Your task to perform on an android device: allow notifications from all sites in the chrome app Image 0: 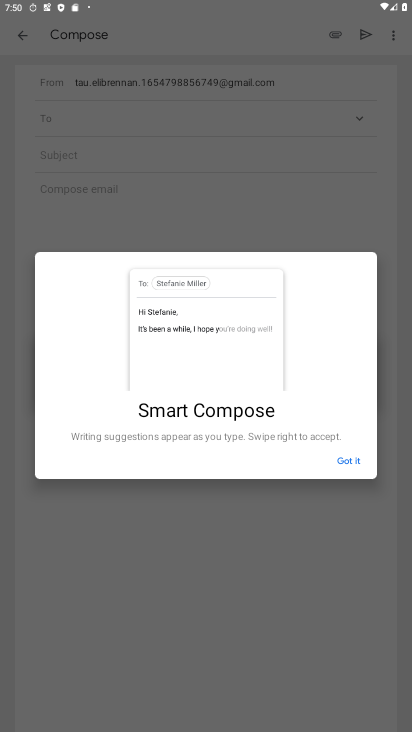
Step 0: press home button
Your task to perform on an android device: allow notifications from all sites in the chrome app Image 1: 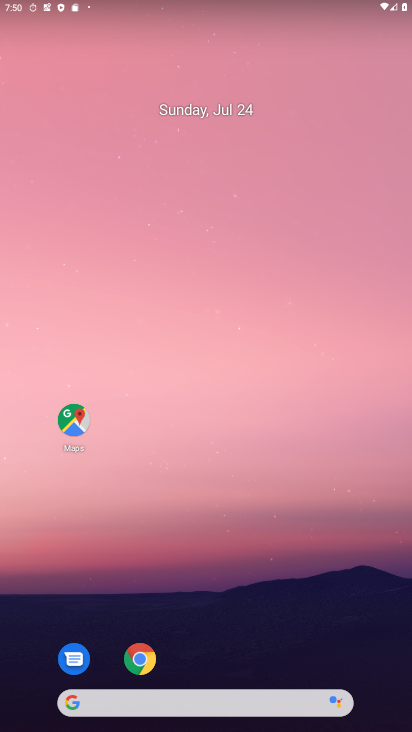
Step 1: drag from (272, 547) to (279, 114)
Your task to perform on an android device: allow notifications from all sites in the chrome app Image 2: 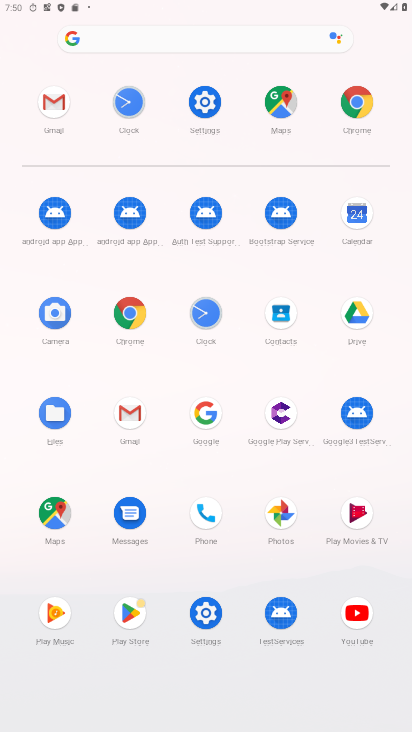
Step 2: click (360, 99)
Your task to perform on an android device: allow notifications from all sites in the chrome app Image 3: 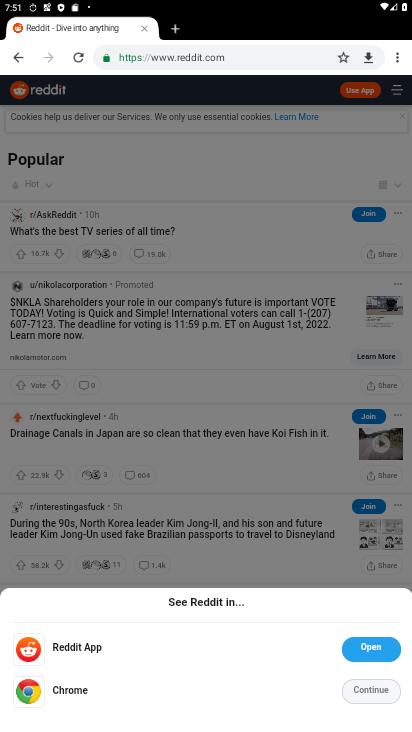
Step 3: drag from (399, 45) to (292, 385)
Your task to perform on an android device: allow notifications from all sites in the chrome app Image 4: 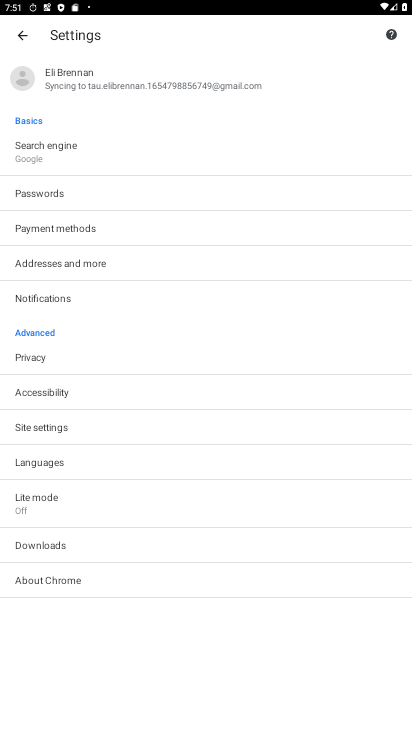
Step 4: click (73, 302)
Your task to perform on an android device: allow notifications from all sites in the chrome app Image 5: 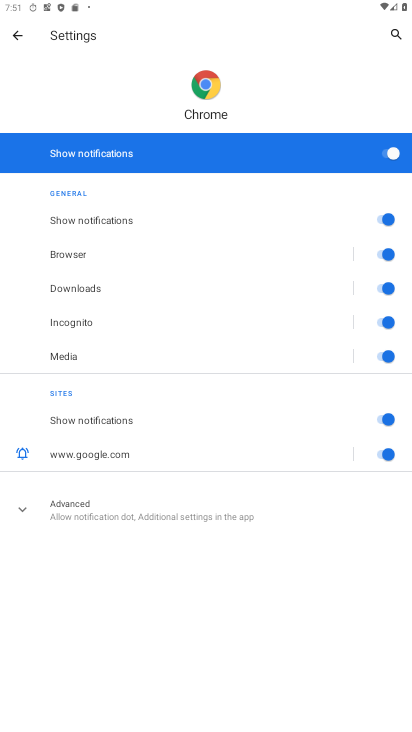
Step 5: task complete